Your task to perform on an android device: Show me popular videos on Youtube Image 0: 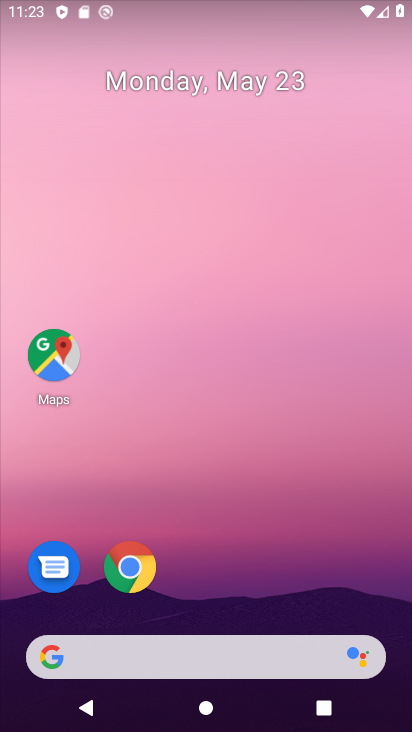
Step 0: drag from (404, 564) to (332, 139)
Your task to perform on an android device: Show me popular videos on Youtube Image 1: 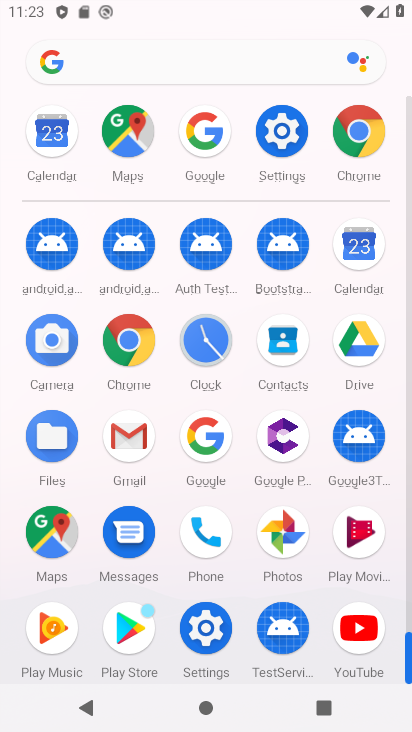
Step 1: click (360, 616)
Your task to perform on an android device: Show me popular videos on Youtube Image 2: 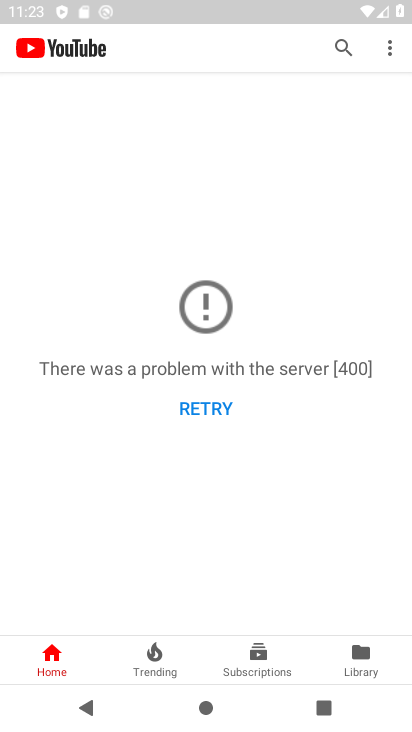
Step 2: click (138, 668)
Your task to perform on an android device: Show me popular videos on Youtube Image 3: 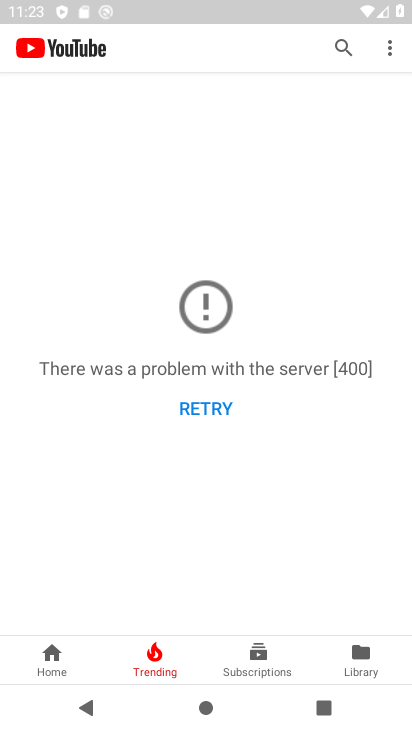
Step 3: task complete